Your task to perform on an android device: Open calendar and show me the first week of next month Image 0: 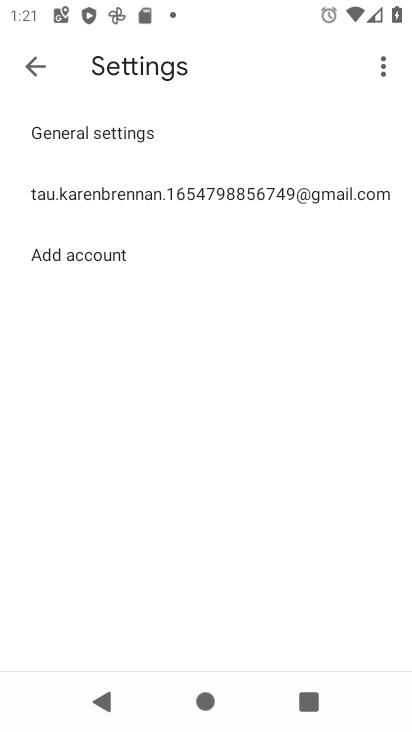
Step 0: press home button
Your task to perform on an android device: Open calendar and show me the first week of next month Image 1: 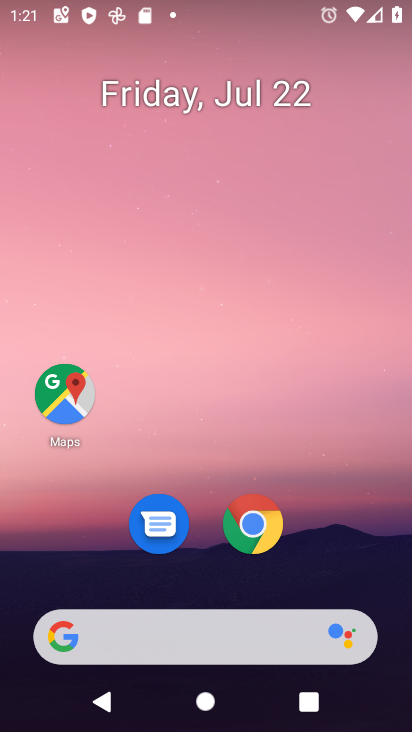
Step 1: drag from (217, 477) to (324, 95)
Your task to perform on an android device: Open calendar and show me the first week of next month Image 2: 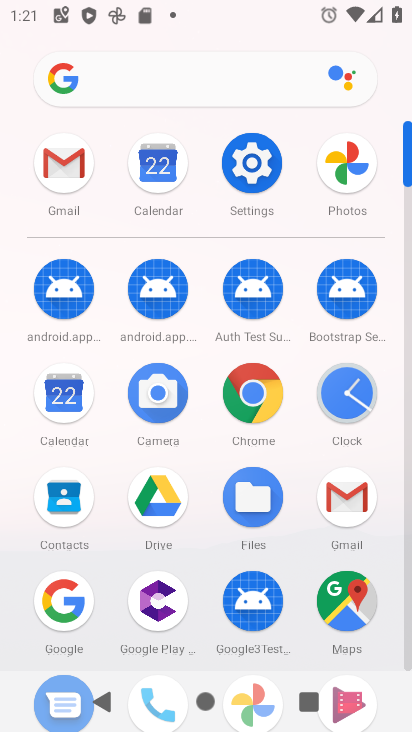
Step 2: click (159, 168)
Your task to perform on an android device: Open calendar and show me the first week of next month Image 3: 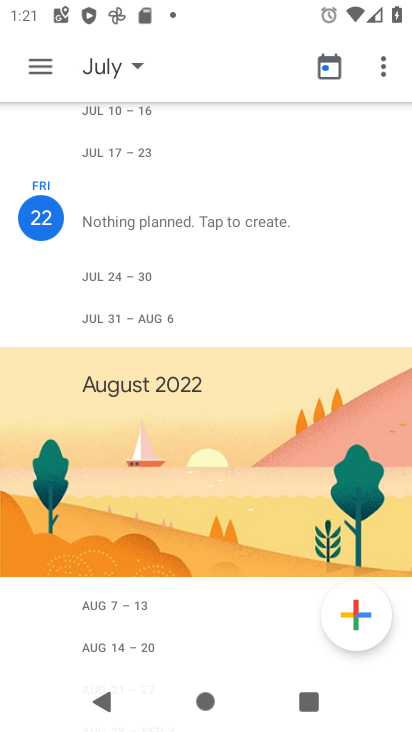
Step 3: click (100, 66)
Your task to perform on an android device: Open calendar and show me the first week of next month Image 4: 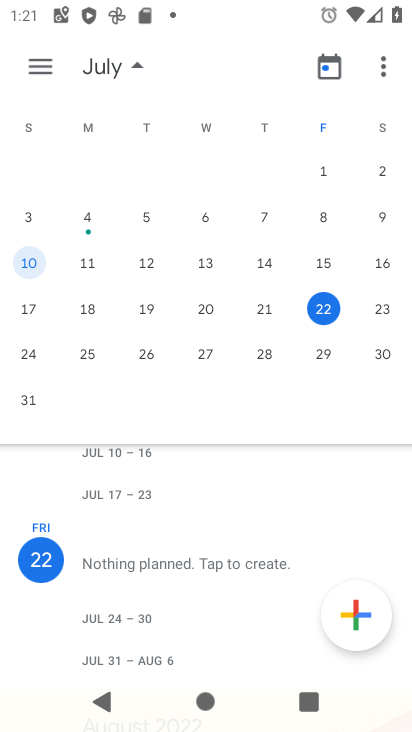
Step 4: drag from (363, 246) to (22, 242)
Your task to perform on an android device: Open calendar and show me the first week of next month Image 5: 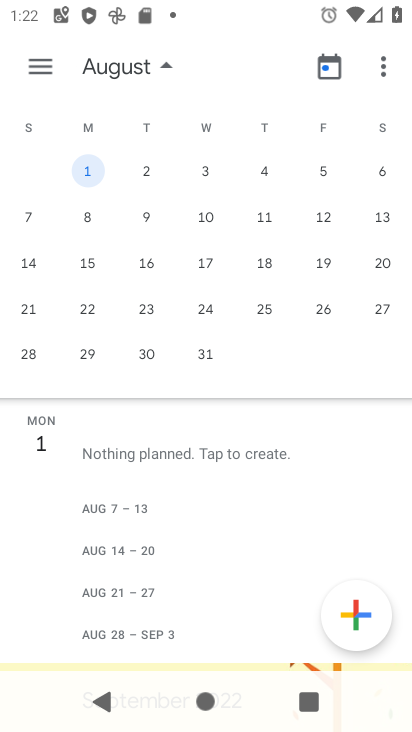
Step 5: click (45, 70)
Your task to perform on an android device: Open calendar and show me the first week of next month Image 6: 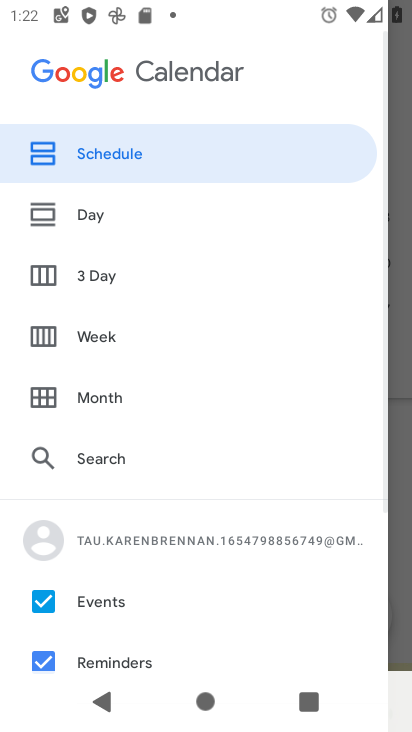
Step 6: click (105, 336)
Your task to perform on an android device: Open calendar and show me the first week of next month Image 7: 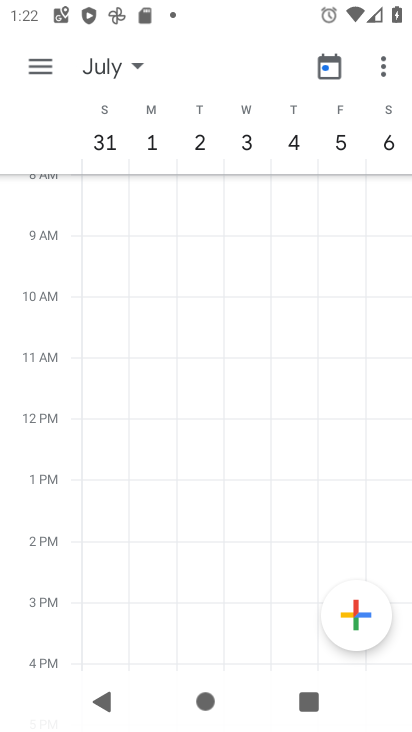
Step 7: task complete